Your task to perform on an android device: add a contact in the contacts app Image 0: 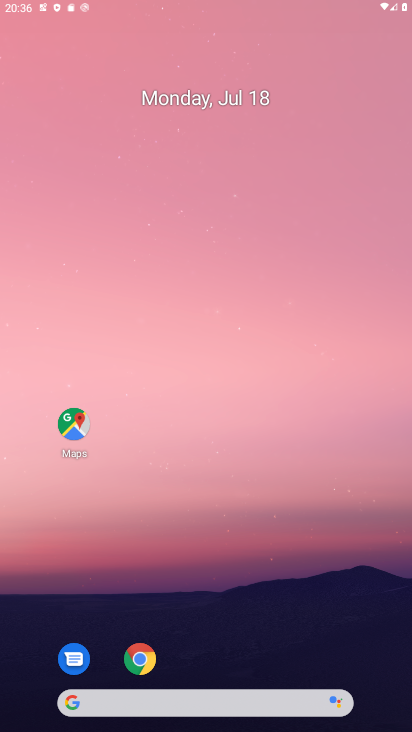
Step 0: click (148, 151)
Your task to perform on an android device: add a contact in the contacts app Image 1: 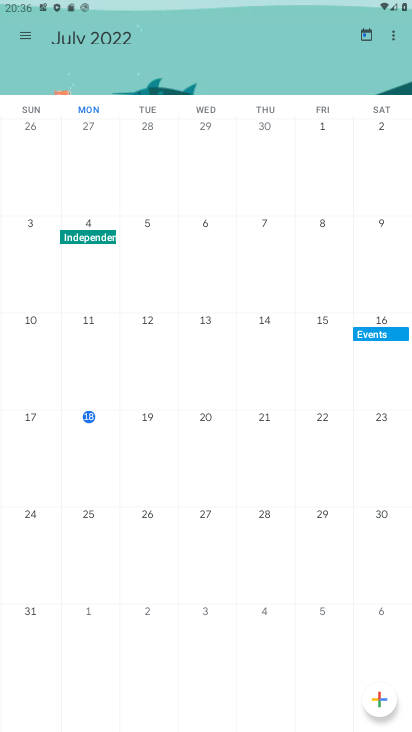
Step 1: drag from (220, 587) to (212, 173)
Your task to perform on an android device: add a contact in the contacts app Image 2: 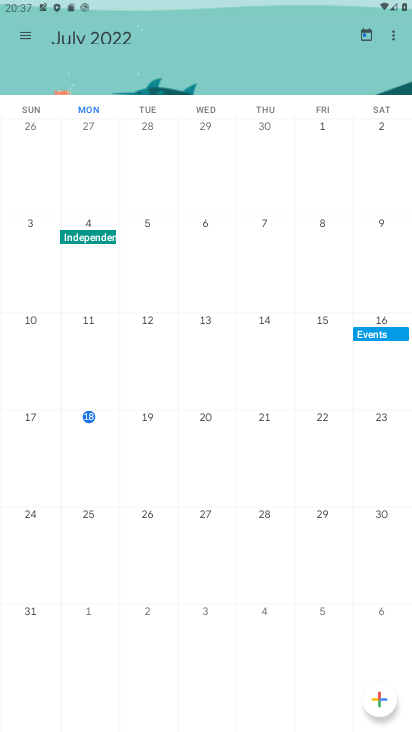
Step 2: press back button
Your task to perform on an android device: add a contact in the contacts app Image 3: 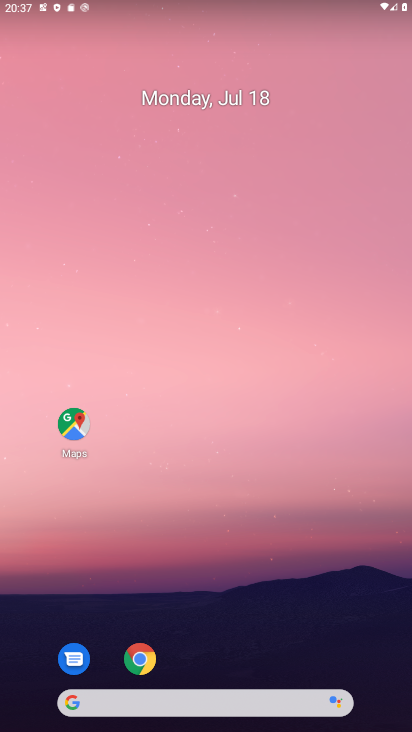
Step 3: drag from (222, 726) to (180, 194)
Your task to perform on an android device: add a contact in the contacts app Image 4: 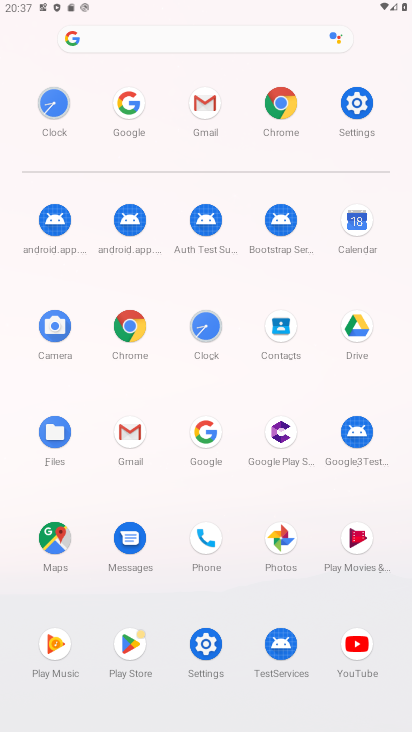
Step 4: click (278, 295)
Your task to perform on an android device: add a contact in the contacts app Image 5: 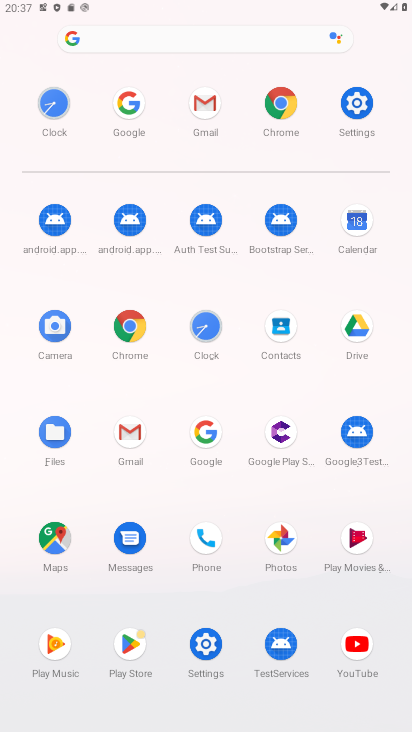
Step 5: click (277, 316)
Your task to perform on an android device: add a contact in the contacts app Image 6: 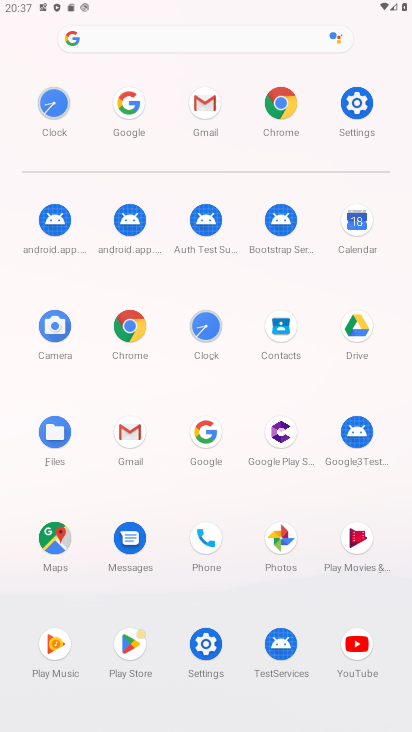
Step 6: click (279, 321)
Your task to perform on an android device: add a contact in the contacts app Image 7: 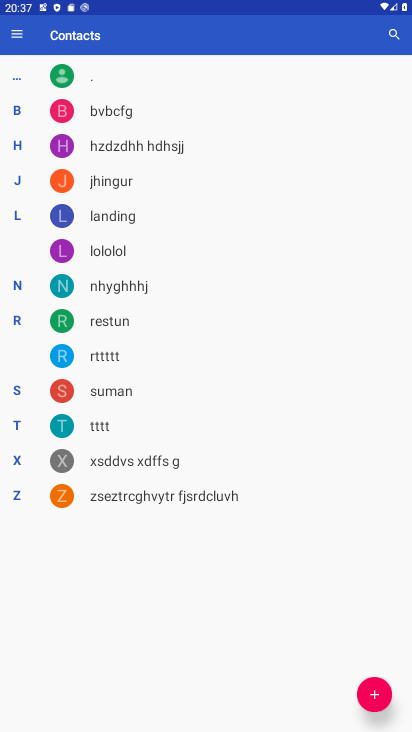
Step 7: click (377, 691)
Your task to perform on an android device: add a contact in the contacts app Image 8: 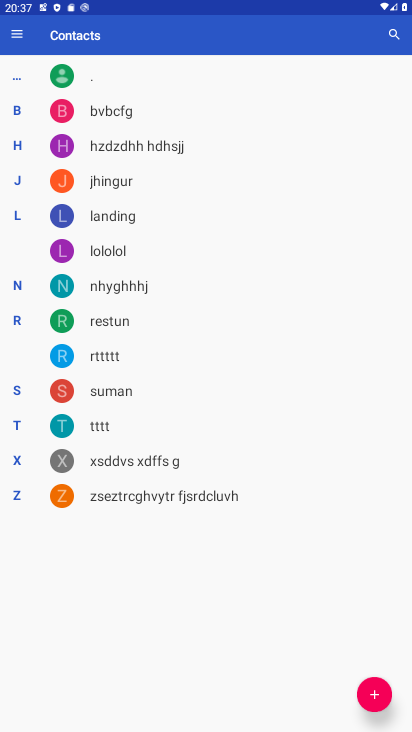
Step 8: click (376, 691)
Your task to perform on an android device: add a contact in the contacts app Image 9: 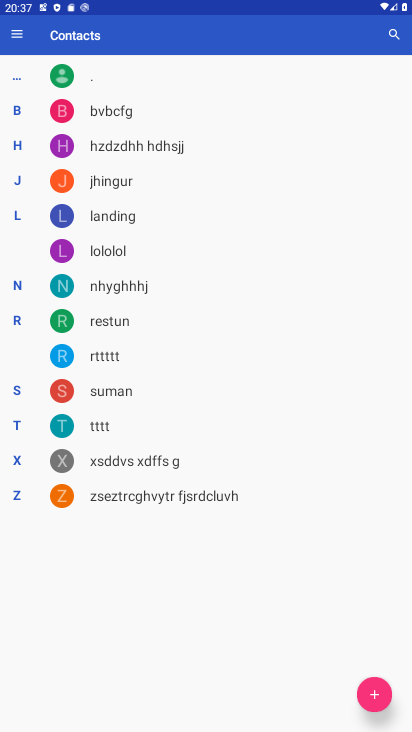
Step 9: click (376, 691)
Your task to perform on an android device: add a contact in the contacts app Image 10: 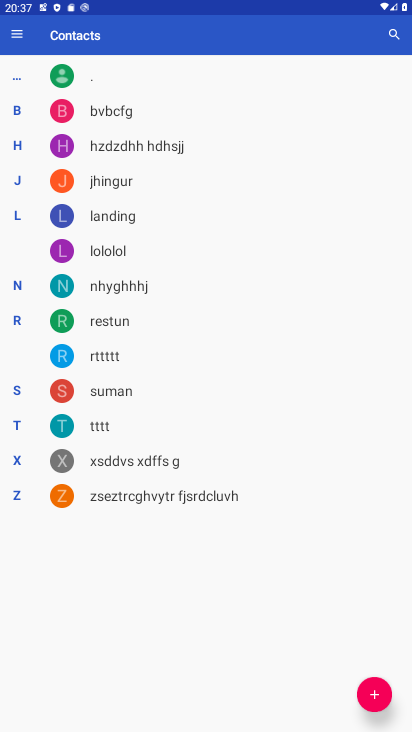
Step 10: click (376, 691)
Your task to perform on an android device: add a contact in the contacts app Image 11: 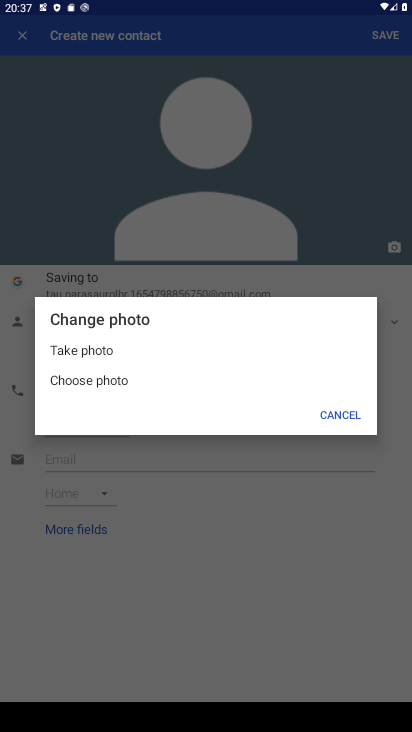
Step 11: click (333, 412)
Your task to perform on an android device: add a contact in the contacts app Image 12: 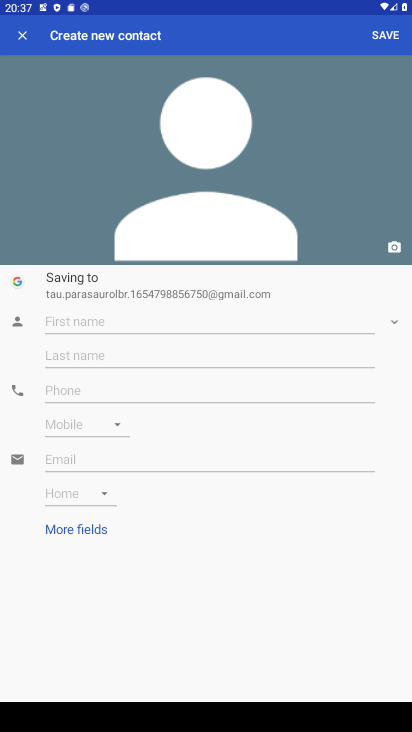
Step 12: click (65, 323)
Your task to perform on an android device: add a contact in the contacts app Image 13: 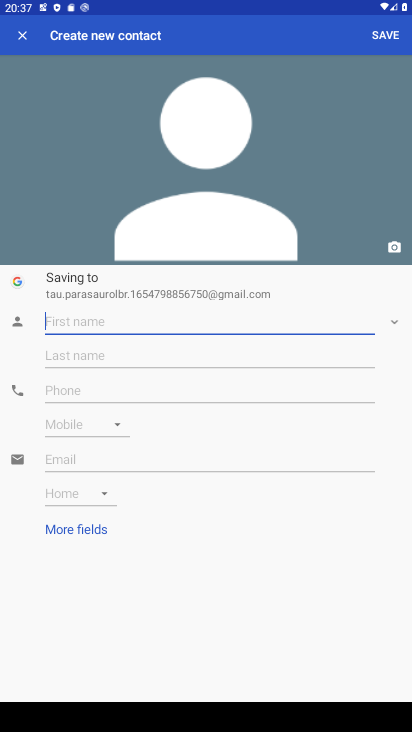
Step 13: type "nbnbnn"
Your task to perform on an android device: add a contact in the contacts app Image 14: 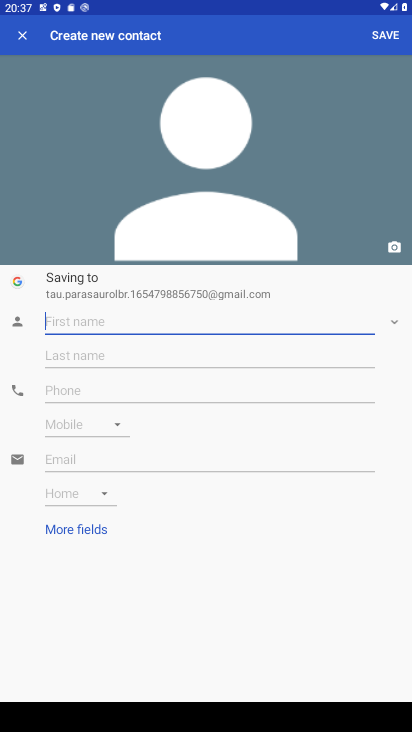
Step 14: click (64, 391)
Your task to perform on an android device: add a contact in the contacts app Image 15: 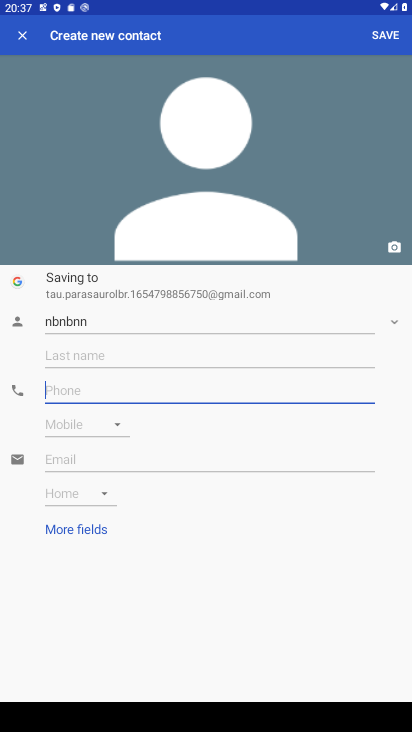
Step 15: click (64, 391)
Your task to perform on an android device: add a contact in the contacts app Image 16: 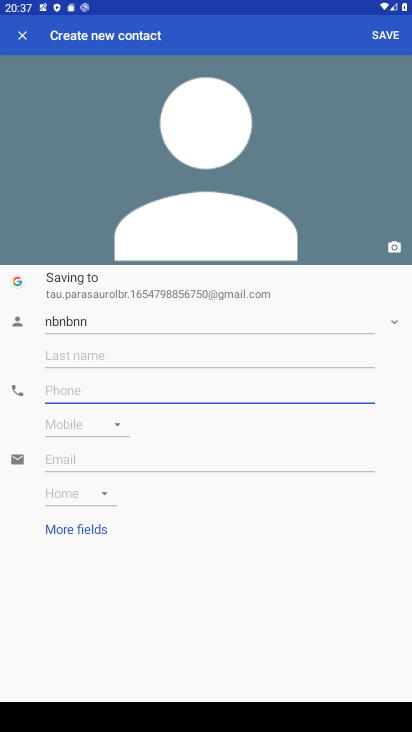
Step 16: type "67676876867pp9o89"
Your task to perform on an android device: add a contact in the contacts app Image 17: 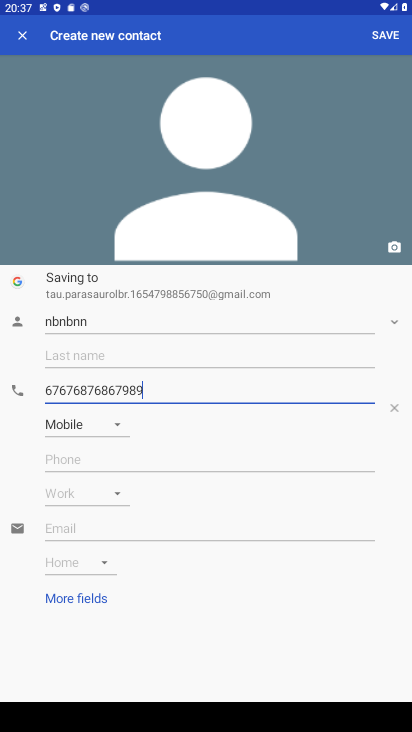
Step 17: click (394, 34)
Your task to perform on an android device: add a contact in the contacts app Image 18: 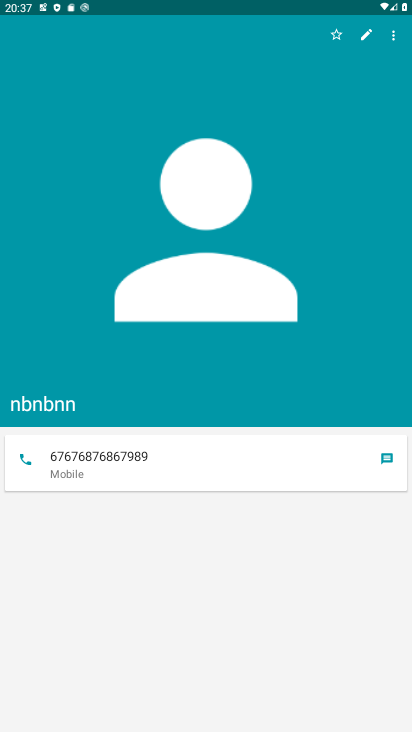
Step 18: task complete